Your task to perform on an android device: Open location settings Image 0: 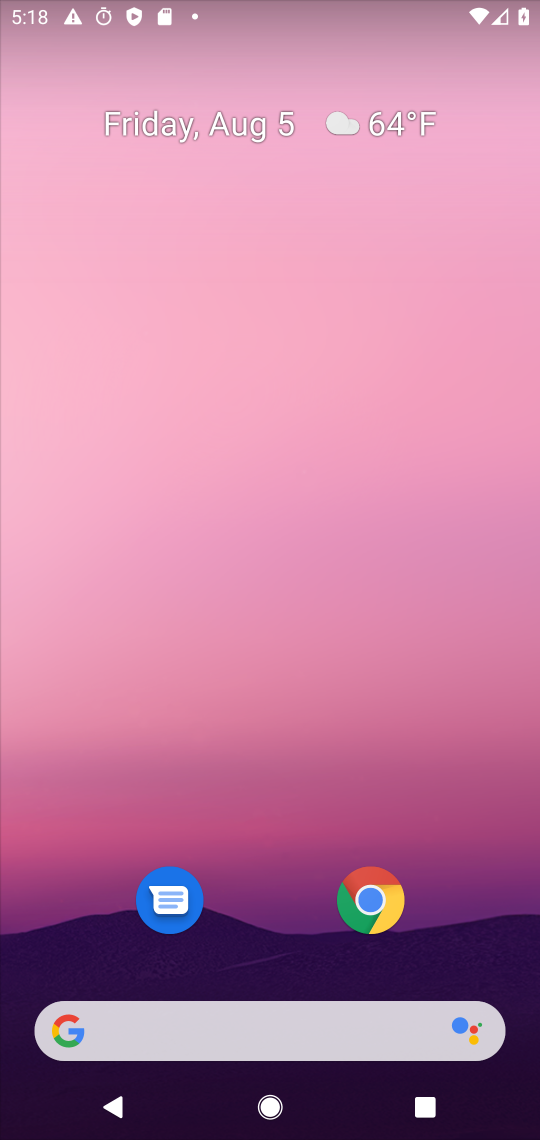
Step 0: drag from (292, 1024) to (267, 59)
Your task to perform on an android device: Open location settings Image 1: 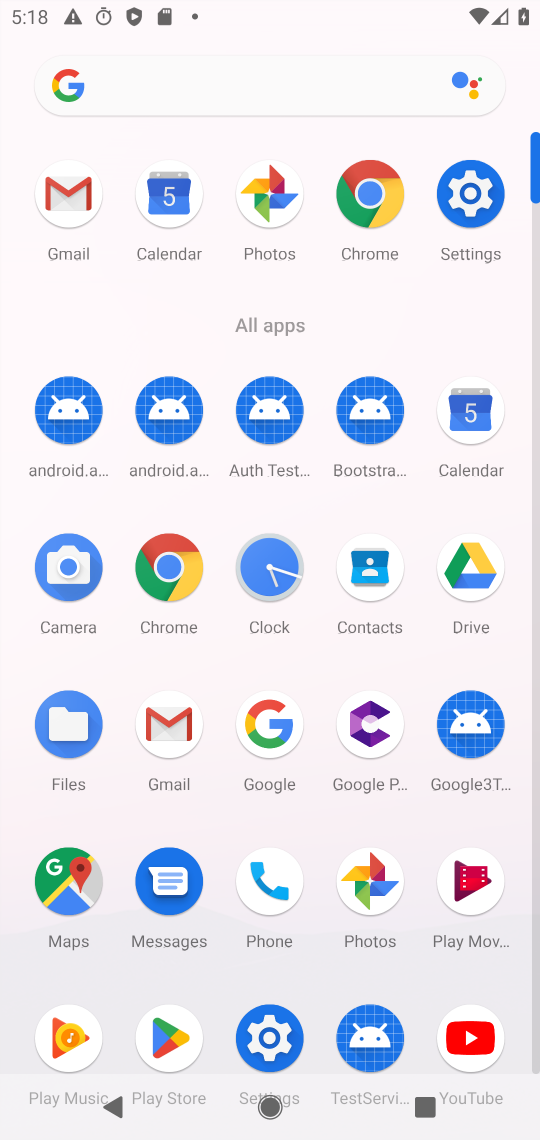
Step 1: click (473, 187)
Your task to perform on an android device: Open location settings Image 2: 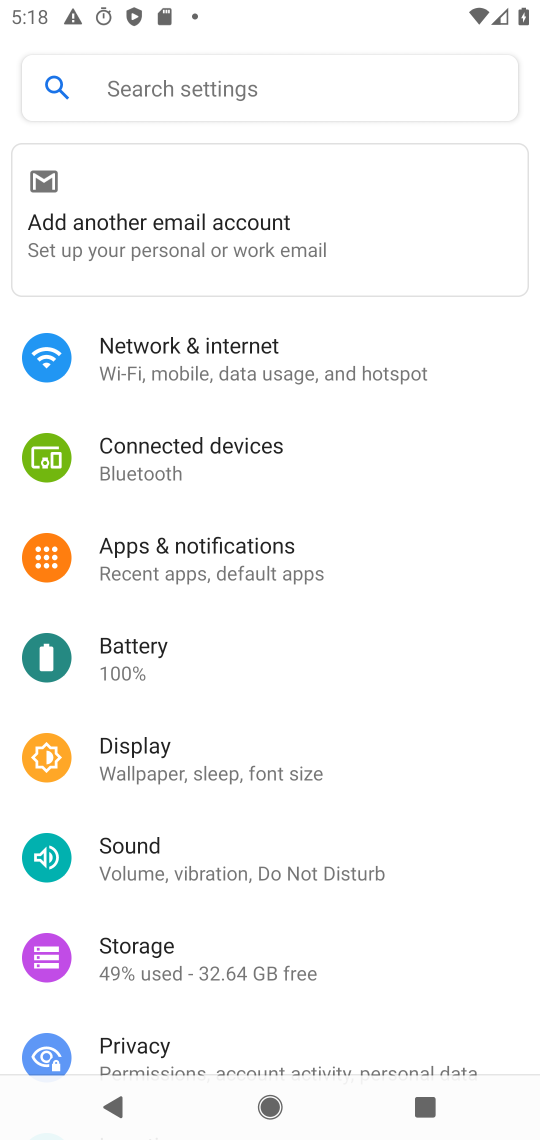
Step 2: drag from (202, 803) to (241, 161)
Your task to perform on an android device: Open location settings Image 3: 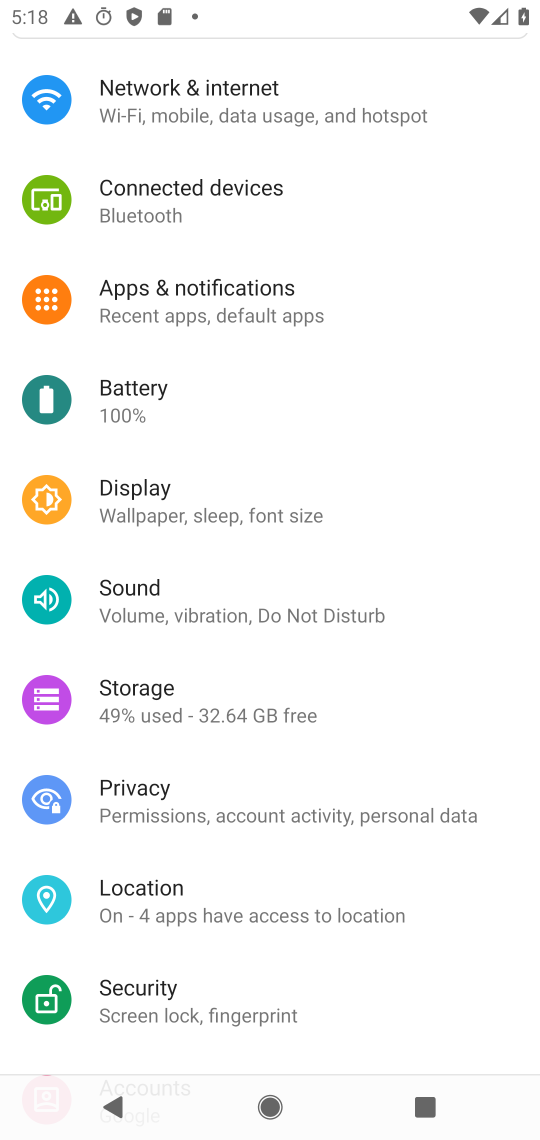
Step 3: click (192, 901)
Your task to perform on an android device: Open location settings Image 4: 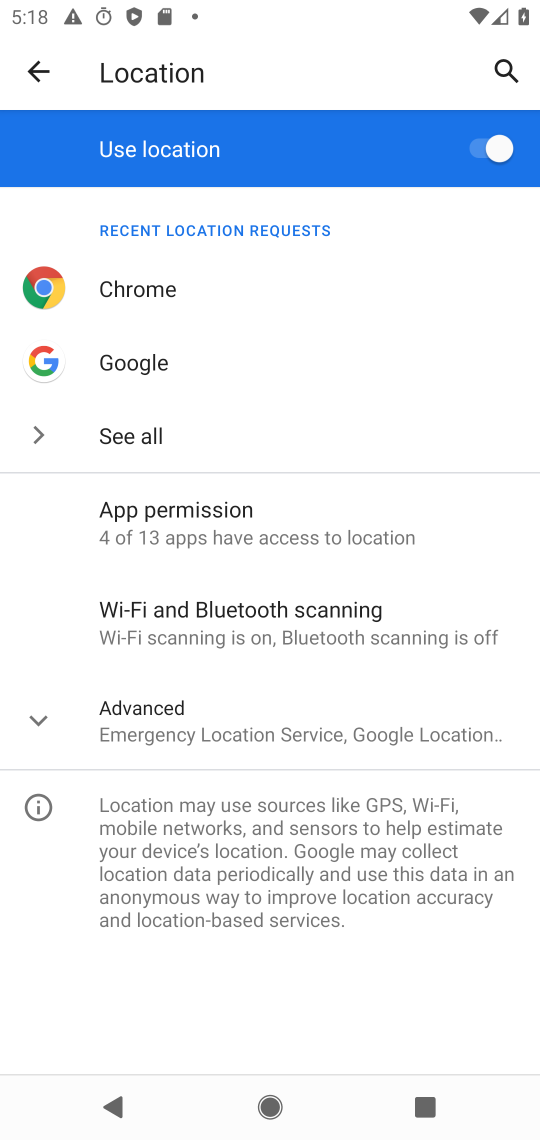
Step 4: task complete